Your task to perform on an android device: turn off location history Image 0: 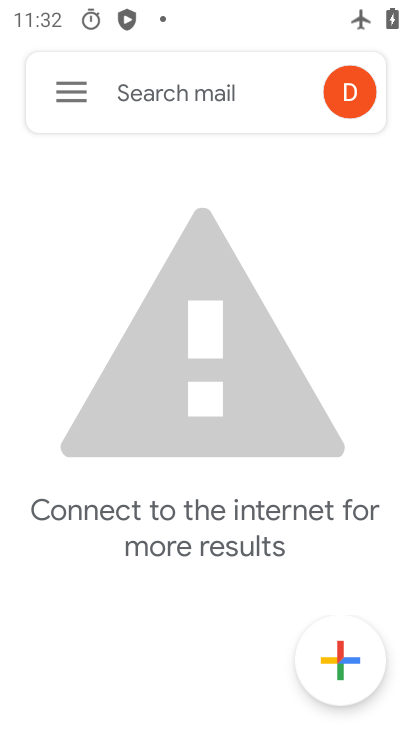
Step 0: press home button
Your task to perform on an android device: turn off location history Image 1: 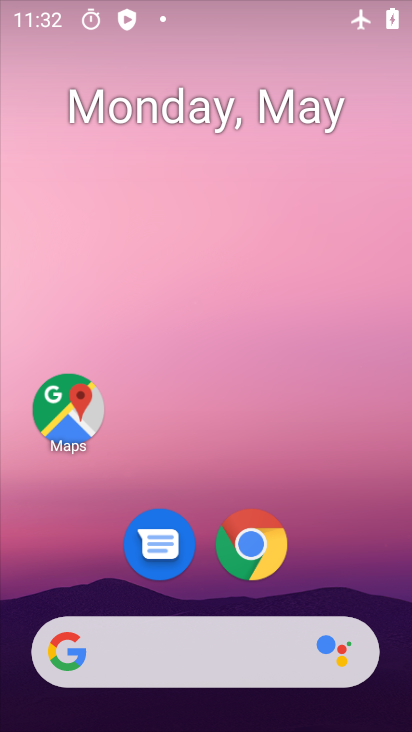
Step 1: drag from (352, 604) to (356, 224)
Your task to perform on an android device: turn off location history Image 2: 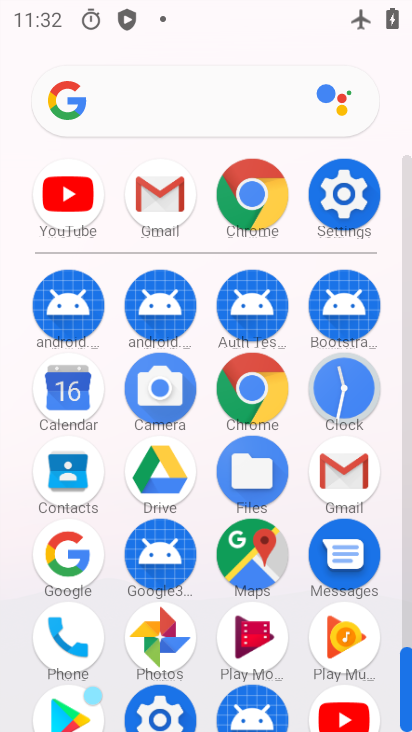
Step 2: click (360, 198)
Your task to perform on an android device: turn off location history Image 3: 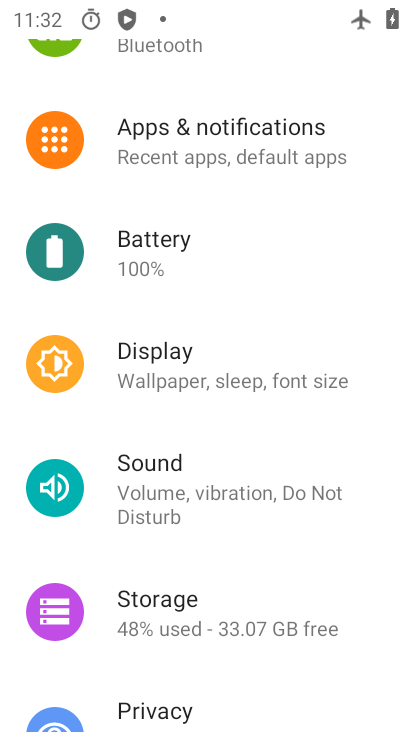
Step 3: drag from (301, 280) to (316, 644)
Your task to perform on an android device: turn off location history Image 4: 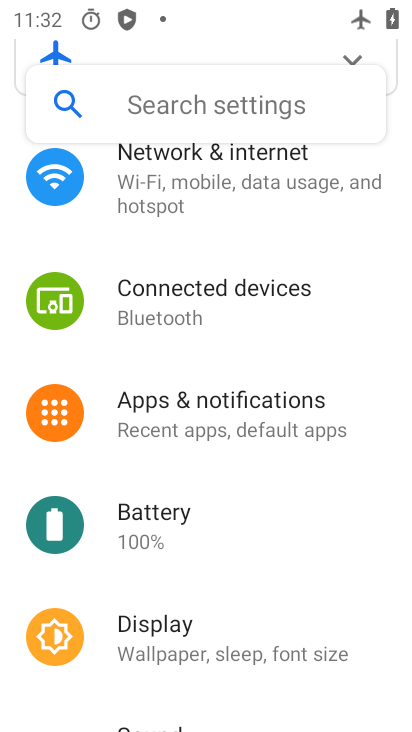
Step 4: drag from (331, 693) to (334, 353)
Your task to perform on an android device: turn off location history Image 5: 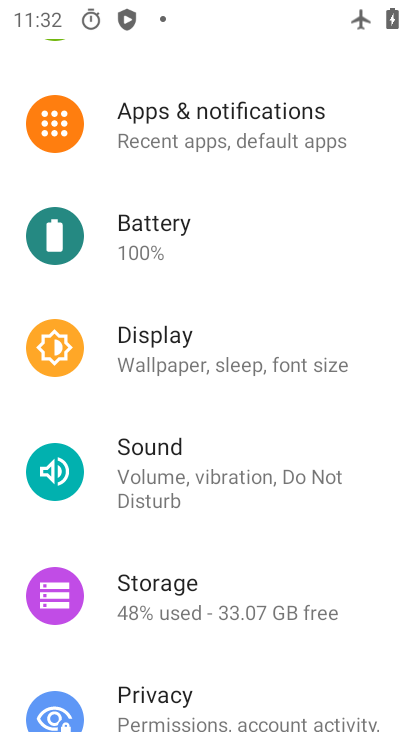
Step 5: drag from (267, 572) to (277, 382)
Your task to perform on an android device: turn off location history Image 6: 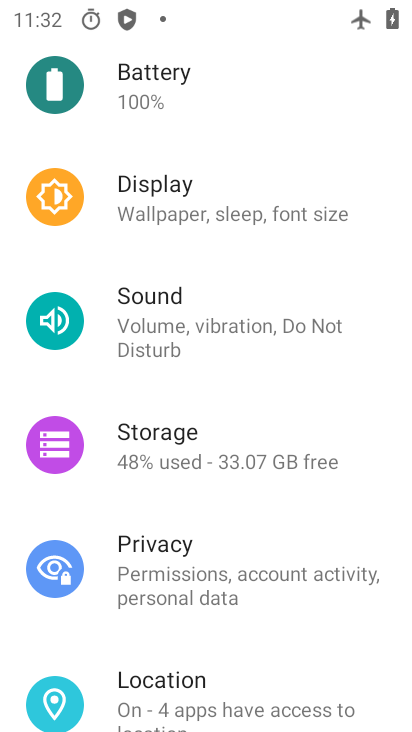
Step 6: click (244, 693)
Your task to perform on an android device: turn off location history Image 7: 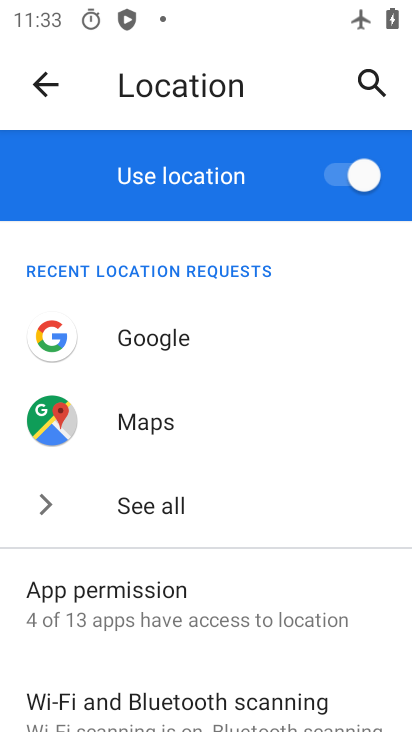
Step 7: drag from (300, 634) to (269, 341)
Your task to perform on an android device: turn off location history Image 8: 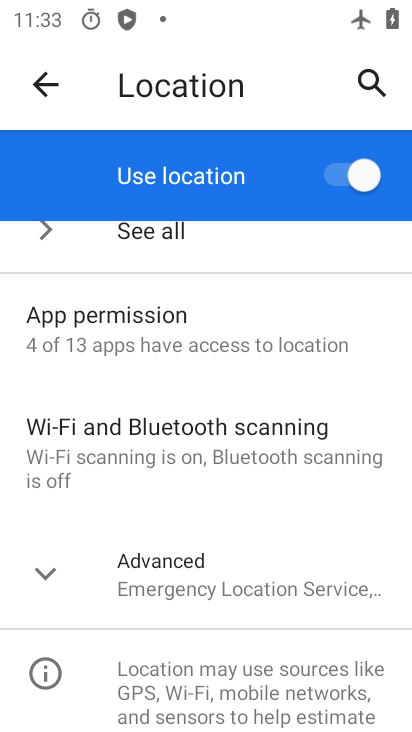
Step 8: click (275, 600)
Your task to perform on an android device: turn off location history Image 9: 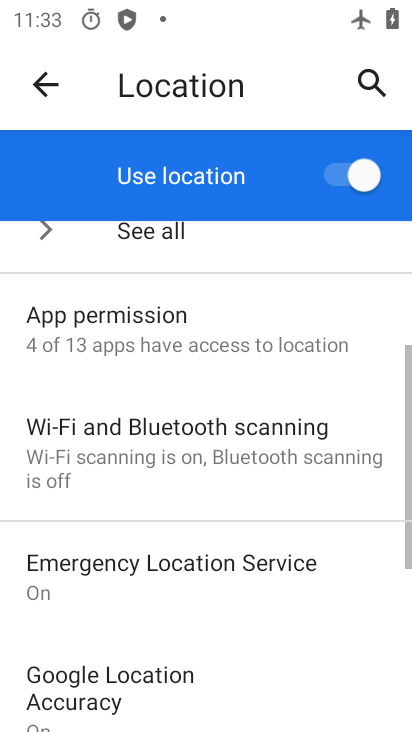
Step 9: drag from (277, 668) to (251, 380)
Your task to perform on an android device: turn off location history Image 10: 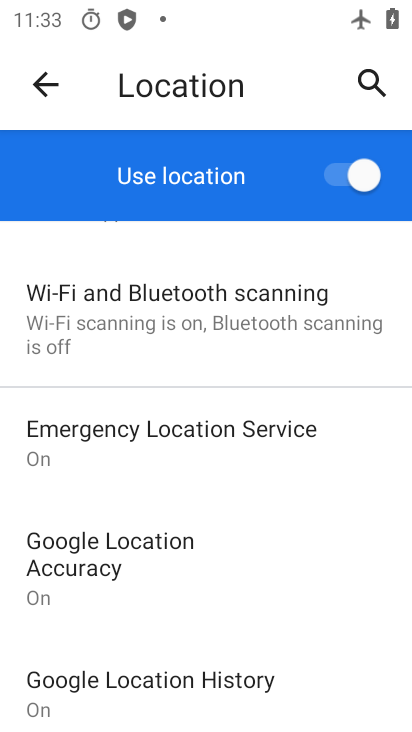
Step 10: click (251, 679)
Your task to perform on an android device: turn off location history Image 11: 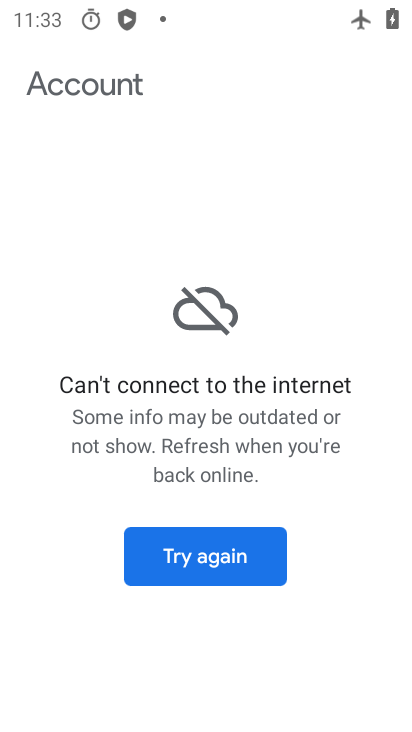
Step 11: task complete